Your task to perform on an android device: check storage Image 0: 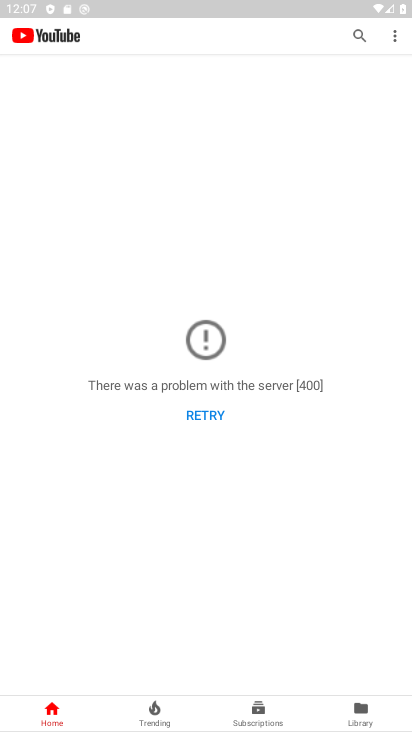
Step 0: press home button
Your task to perform on an android device: check storage Image 1: 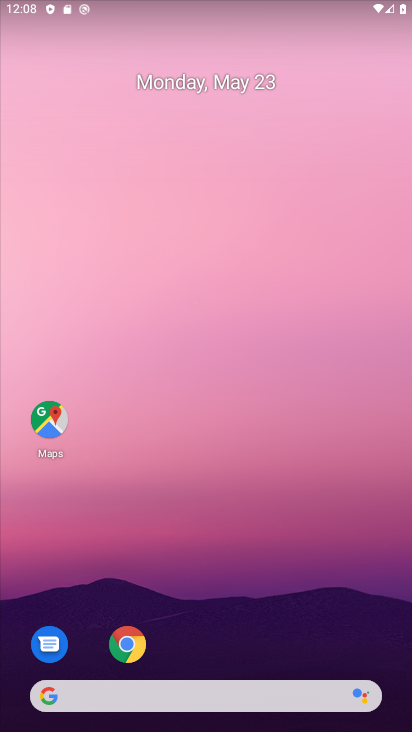
Step 1: drag from (236, 620) to (265, 46)
Your task to perform on an android device: check storage Image 2: 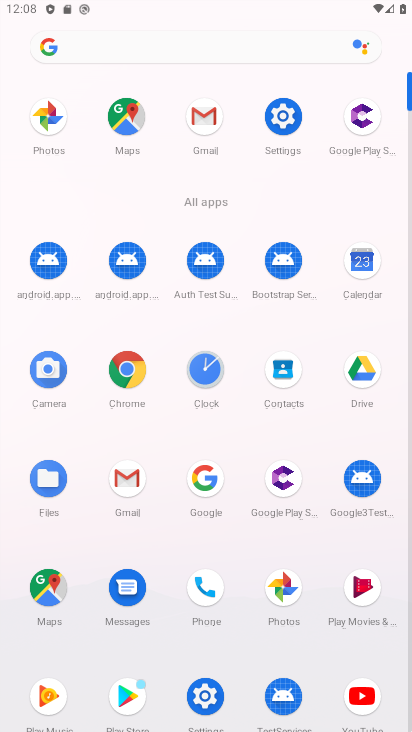
Step 2: click (288, 123)
Your task to perform on an android device: check storage Image 3: 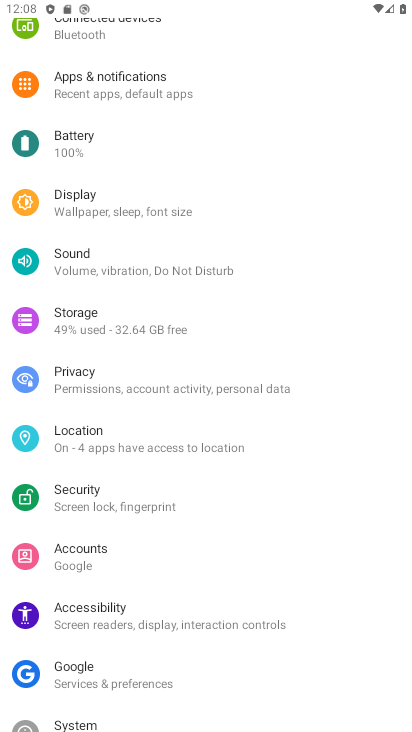
Step 3: click (126, 322)
Your task to perform on an android device: check storage Image 4: 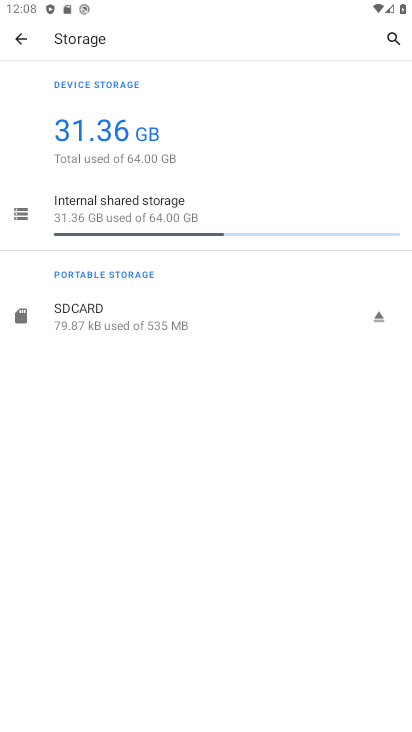
Step 4: task complete